Your task to perform on an android device: turn smart compose on in the gmail app Image 0: 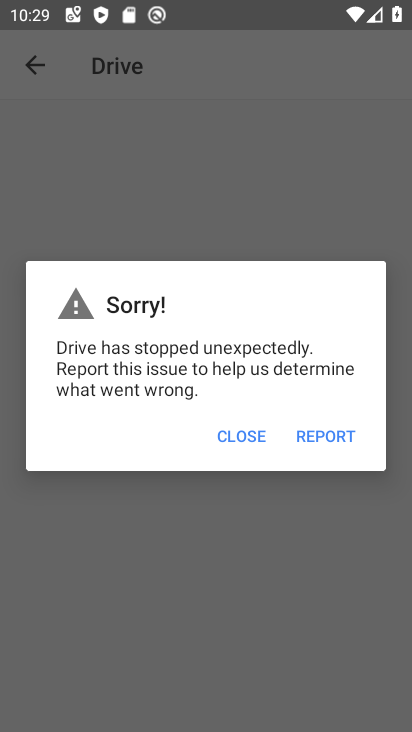
Step 0: press home button
Your task to perform on an android device: turn smart compose on in the gmail app Image 1: 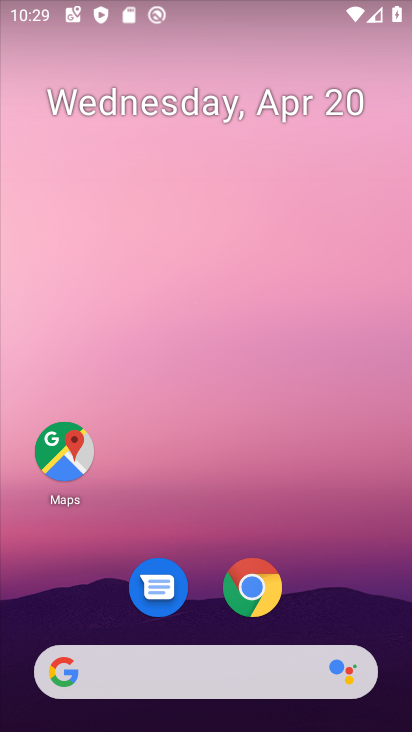
Step 1: drag from (206, 620) to (223, 95)
Your task to perform on an android device: turn smart compose on in the gmail app Image 2: 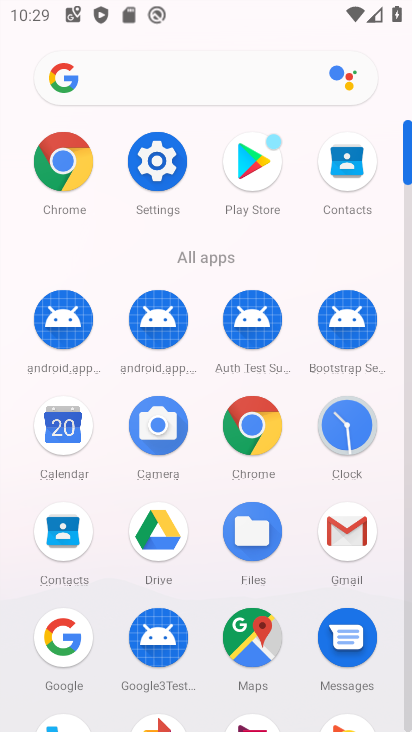
Step 2: drag from (208, 681) to (218, 206)
Your task to perform on an android device: turn smart compose on in the gmail app Image 3: 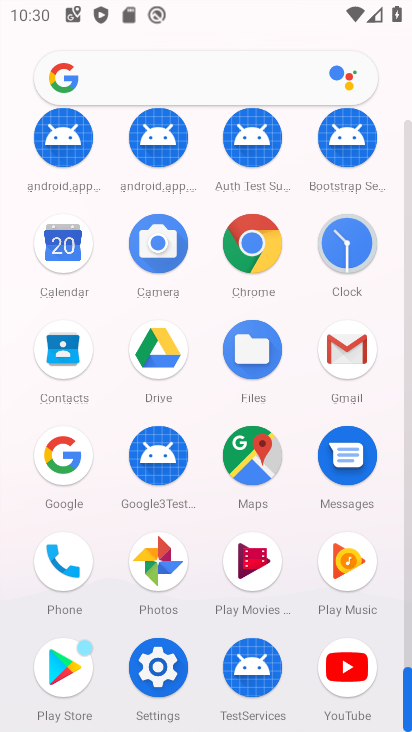
Step 3: click (347, 343)
Your task to perform on an android device: turn smart compose on in the gmail app Image 4: 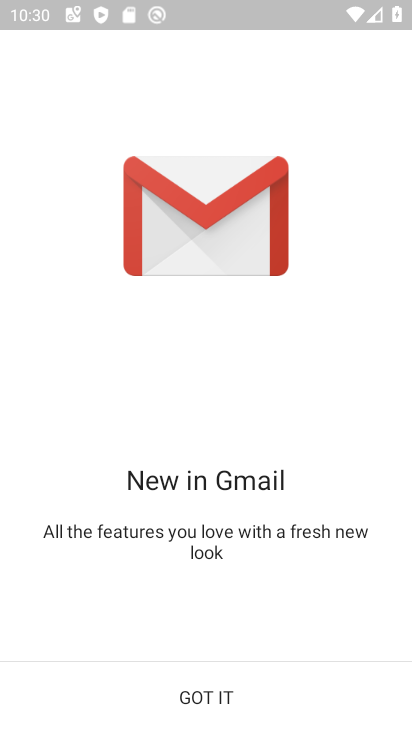
Step 4: click (213, 706)
Your task to perform on an android device: turn smart compose on in the gmail app Image 5: 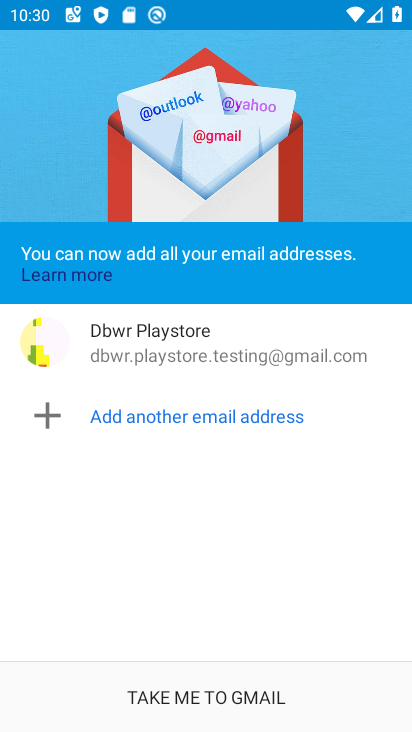
Step 5: click (204, 708)
Your task to perform on an android device: turn smart compose on in the gmail app Image 6: 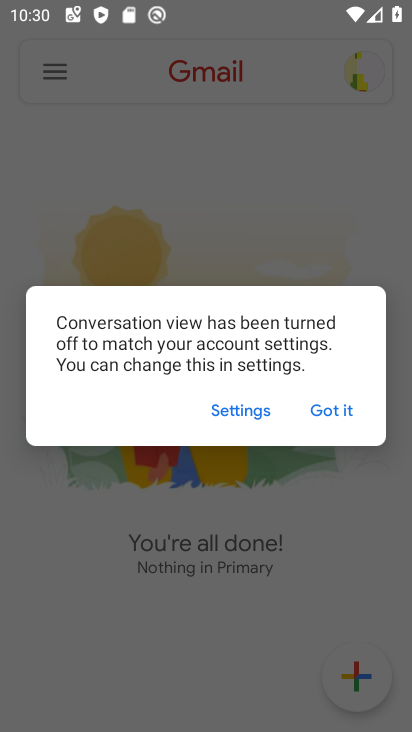
Step 6: click (328, 412)
Your task to perform on an android device: turn smart compose on in the gmail app Image 7: 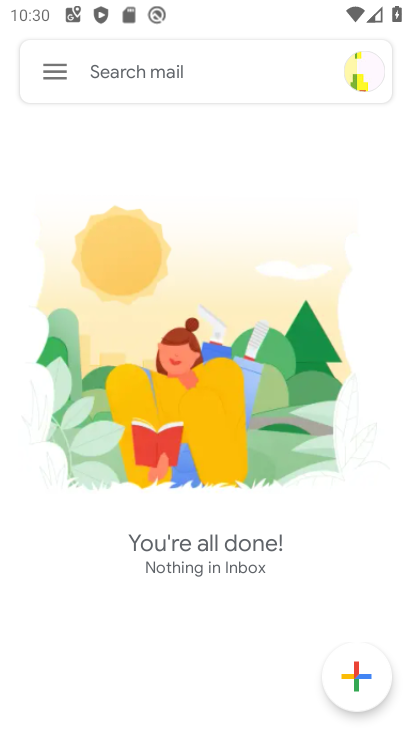
Step 7: click (45, 74)
Your task to perform on an android device: turn smart compose on in the gmail app Image 8: 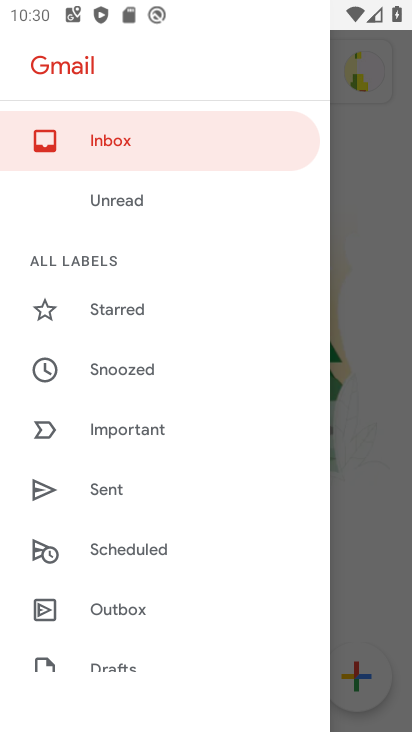
Step 8: drag from (188, 612) to (179, 110)
Your task to perform on an android device: turn smart compose on in the gmail app Image 9: 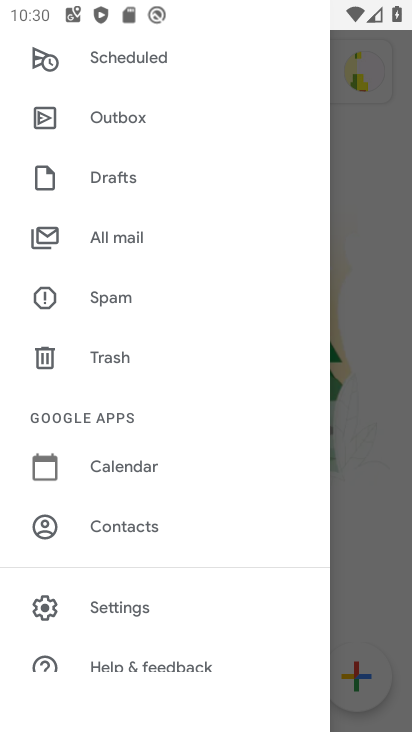
Step 9: click (151, 606)
Your task to perform on an android device: turn smart compose on in the gmail app Image 10: 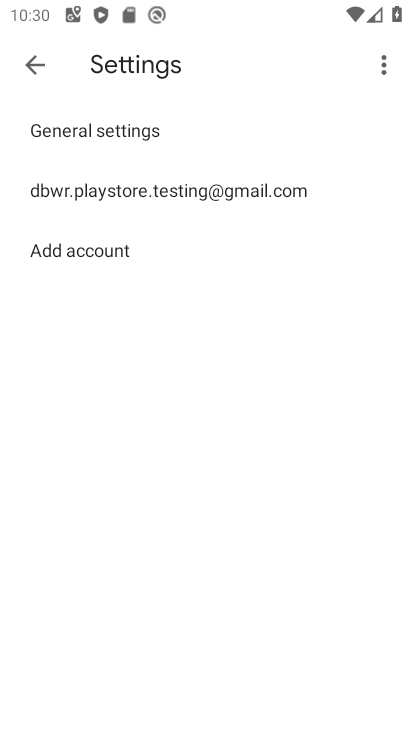
Step 10: click (294, 178)
Your task to perform on an android device: turn smart compose on in the gmail app Image 11: 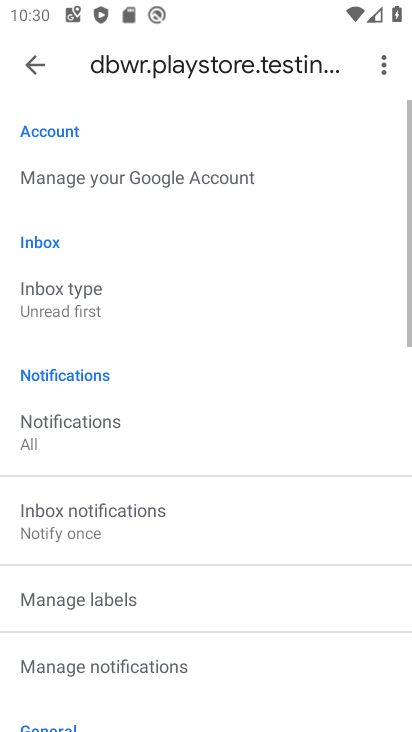
Step 11: task complete